Your task to perform on an android device: open chrome privacy settings Image 0: 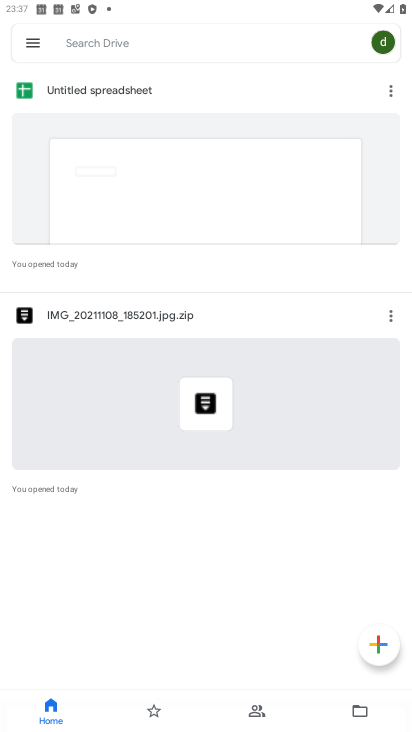
Step 0: press back button
Your task to perform on an android device: open chrome privacy settings Image 1: 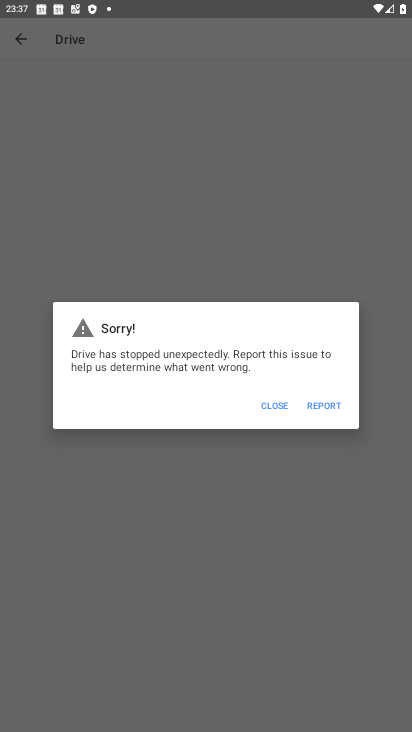
Step 1: press back button
Your task to perform on an android device: open chrome privacy settings Image 2: 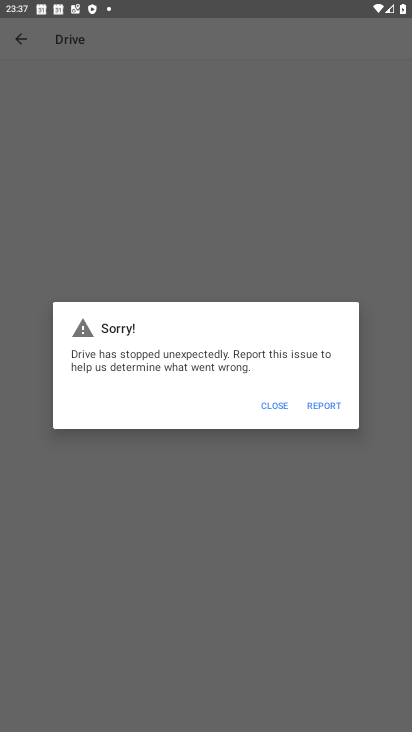
Step 2: press home button
Your task to perform on an android device: open chrome privacy settings Image 3: 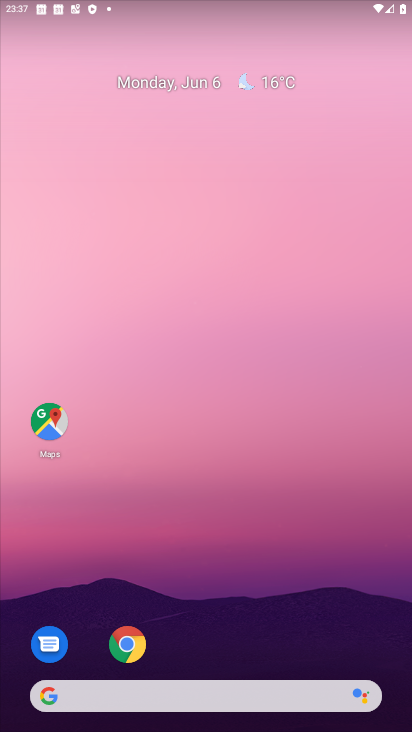
Step 3: drag from (251, 570) to (228, 79)
Your task to perform on an android device: open chrome privacy settings Image 4: 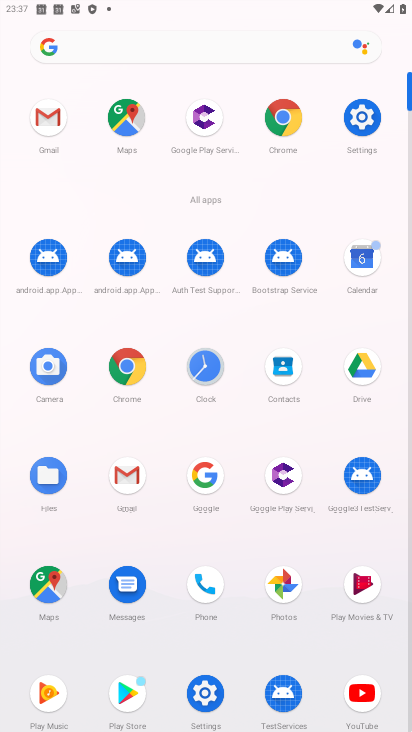
Step 4: click (281, 115)
Your task to perform on an android device: open chrome privacy settings Image 5: 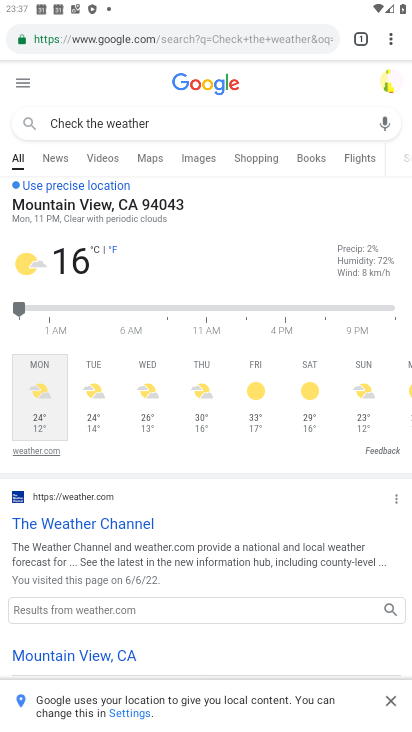
Step 5: drag from (387, 41) to (258, 429)
Your task to perform on an android device: open chrome privacy settings Image 6: 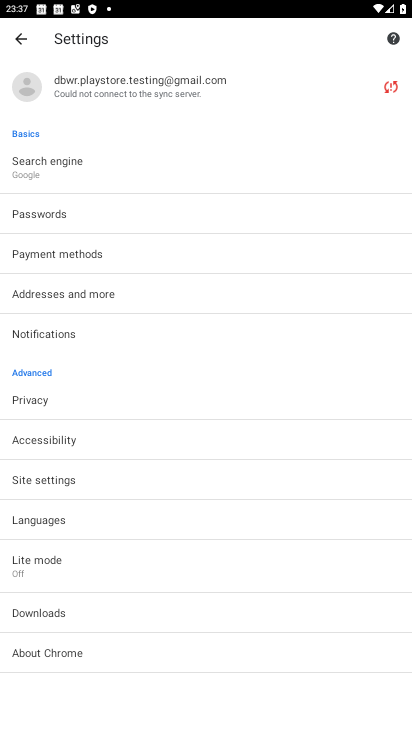
Step 6: click (63, 398)
Your task to perform on an android device: open chrome privacy settings Image 7: 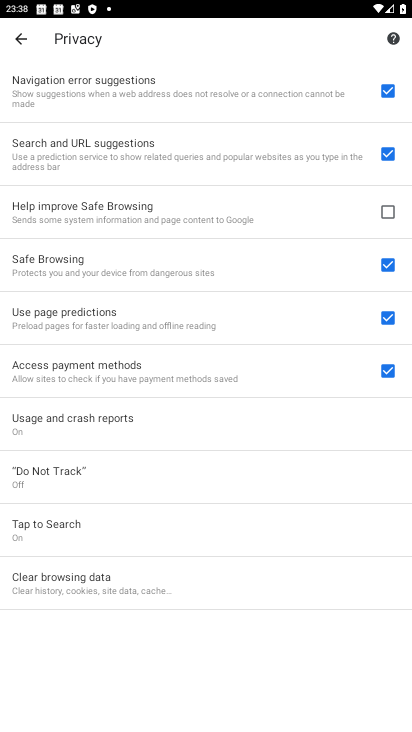
Step 7: task complete